Your task to perform on an android device: Go to eBay Image 0: 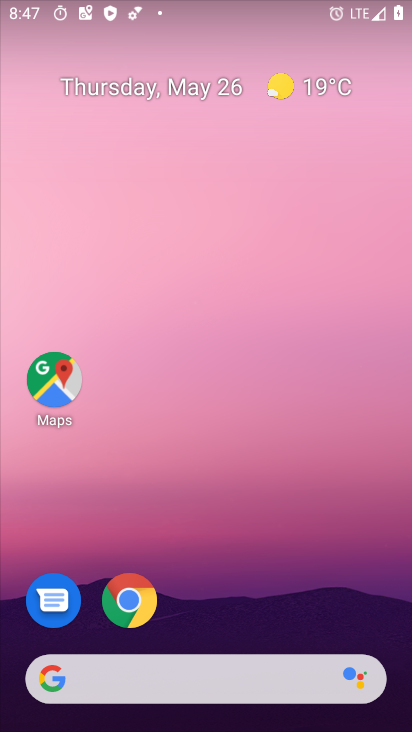
Step 0: press home button
Your task to perform on an android device: Go to eBay Image 1: 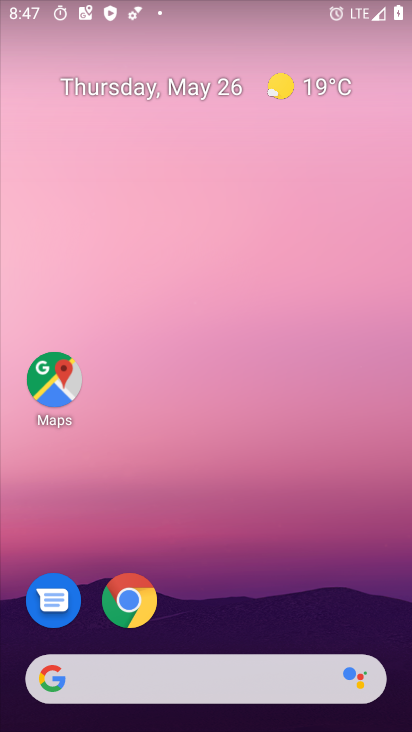
Step 1: click (52, 679)
Your task to perform on an android device: Go to eBay Image 2: 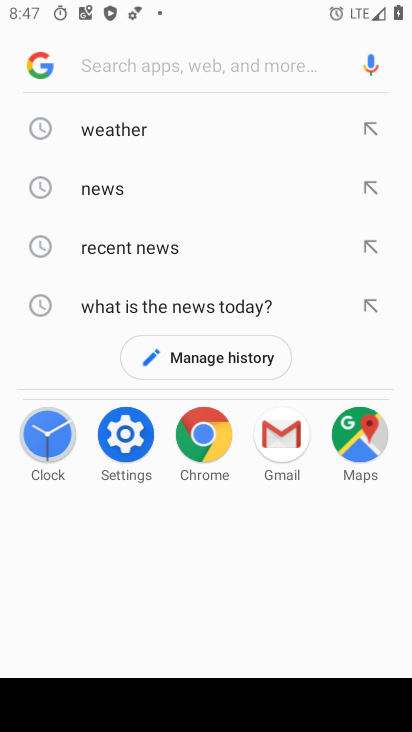
Step 2: type "eBay"
Your task to perform on an android device: Go to eBay Image 3: 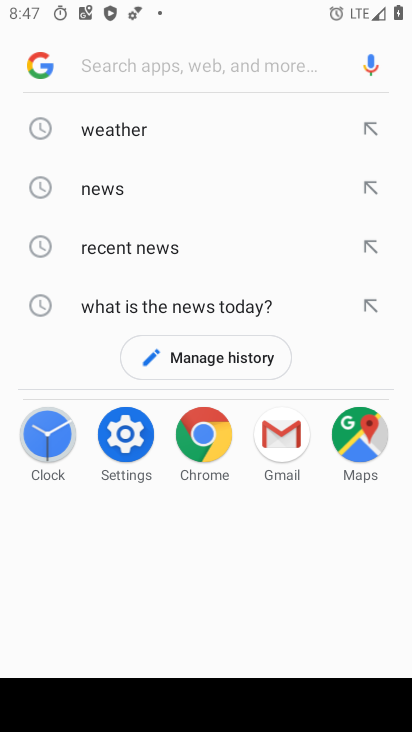
Step 3: click (146, 50)
Your task to perform on an android device: Go to eBay Image 4: 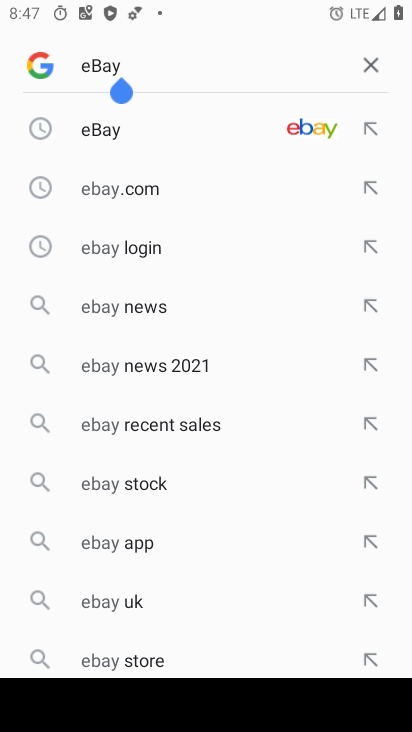
Step 4: click (99, 131)
Your task to perform on an android device: Go to eBay Image 5: 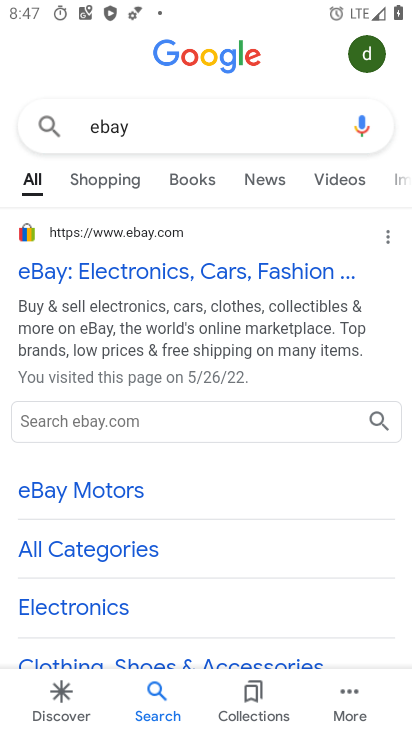
Step 5: click (172, 274)
Your task to perform on an android device: Go to eBay Image 6: 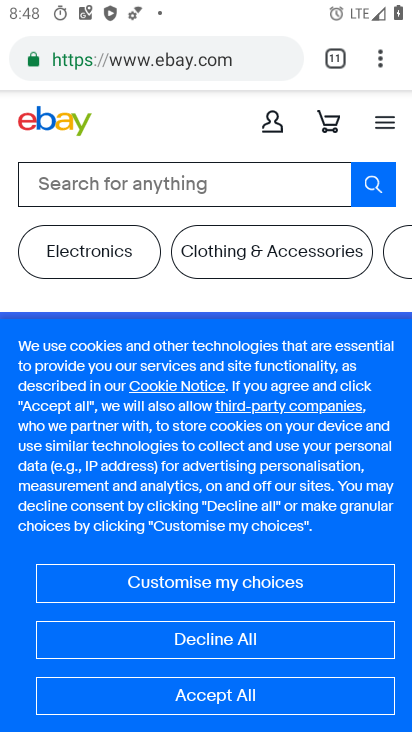
Step 6: task complete